Your task to perform on an android device: Set the phone to "Do not disturb". Image 0: 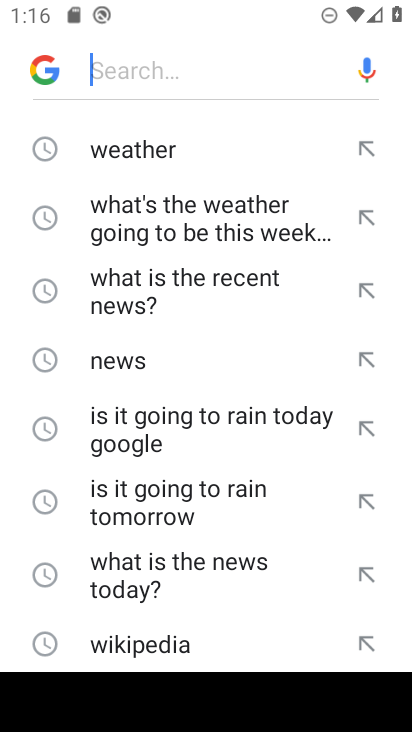
Step 0: drag from (151, 8) to (211, 574)
Your task to perform on an android device: Set the phone to "Do not disturb". Image 1: 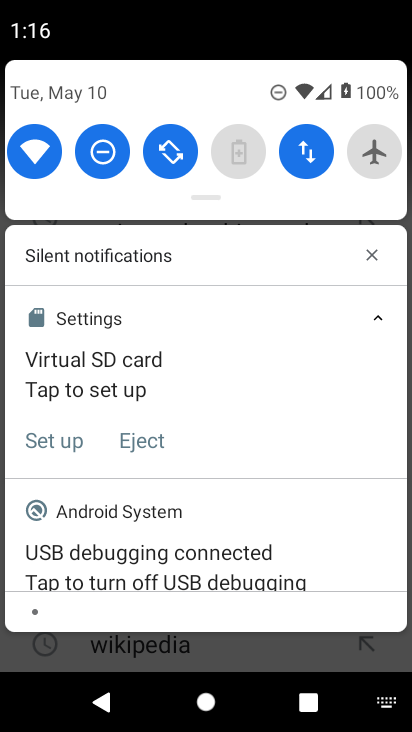
Step 1: task complete